Your task to perform on an android device: turn on airplane mode Image 0: 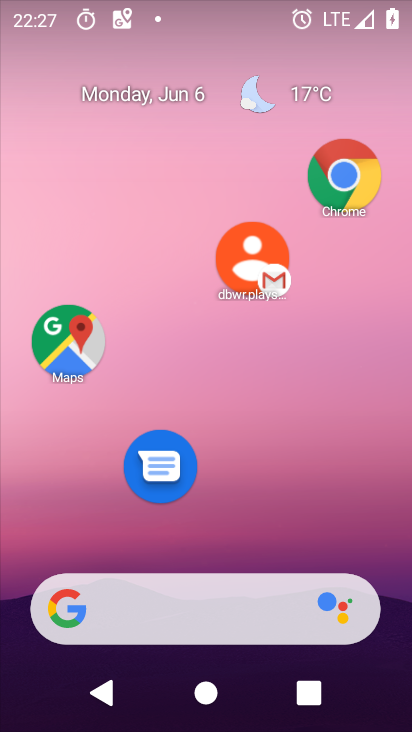
Step 0: drag from (225, 559) to (159, 124)
Your task to perform on an android device: turn on airplane mode Image 1: 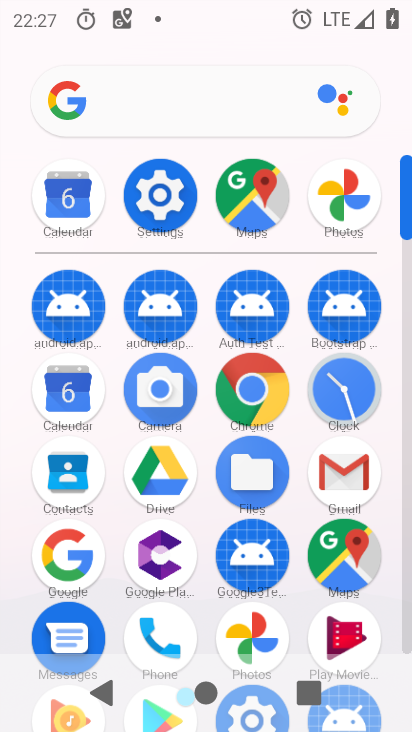
Step 1: click (145, 193)
Your task to perform on an android device: turn on airplane mode Image 2: 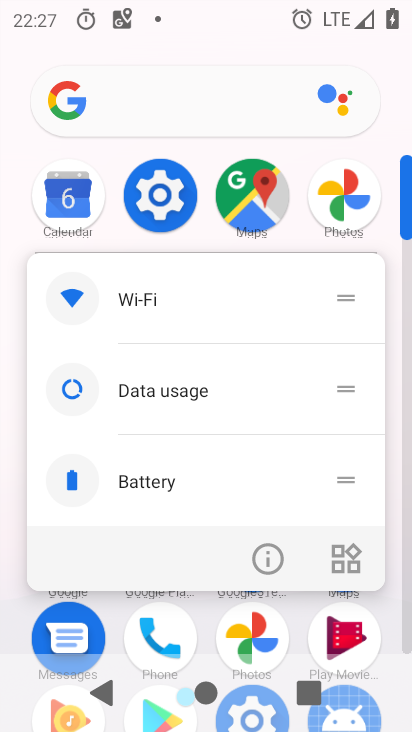
Step 2: click (265, 561)
Your task to perform on an android device: turn on airplane mode Image 3: 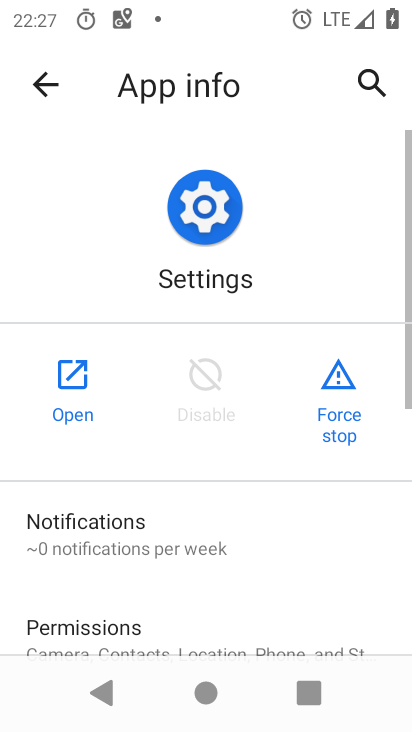
Step 3: click (95, 375)
Your task to perform on an android device: turn on airplane mode Image 4: 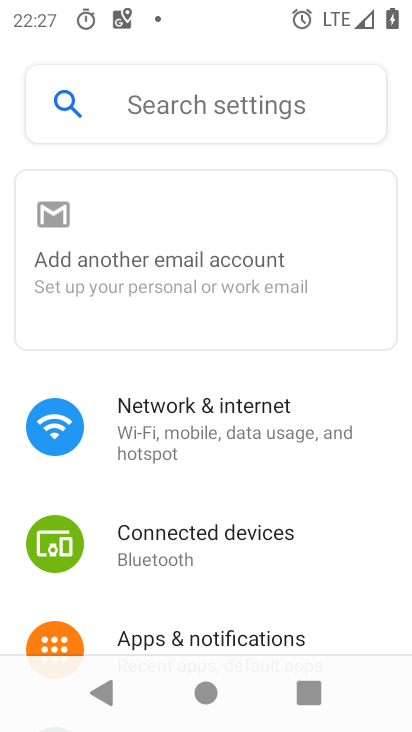
Step 4: drag from (207, 566) to (216, 49)
Your task to perform on an android device: turn on airplane mode Image 5: 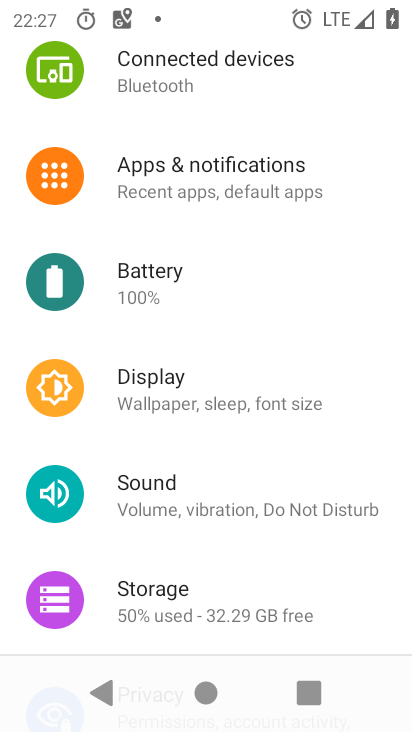
Step 5: drag from (193, 96) to (237, 423)
Your task to perform on an android device: turn on airplane mode Image 6: 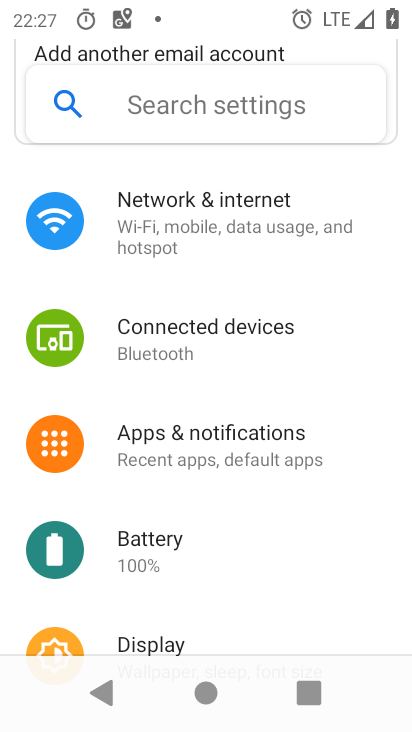
Step 6: click (180, 198)
Your task to perform on an android device: turn on airplane mode Image 7: 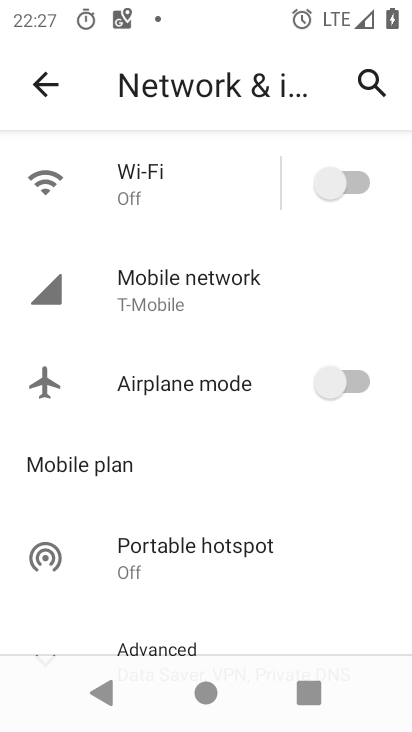
Step 7: click (179, 377)
Your task to perform on an android device: turn on airplane mode Image 8: 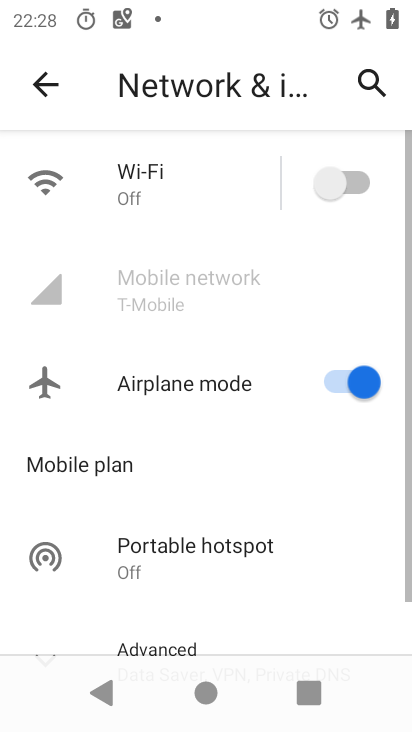
Step 8: task complete